Your task to perform on an android device: turn on bluetooth scan Image 0: 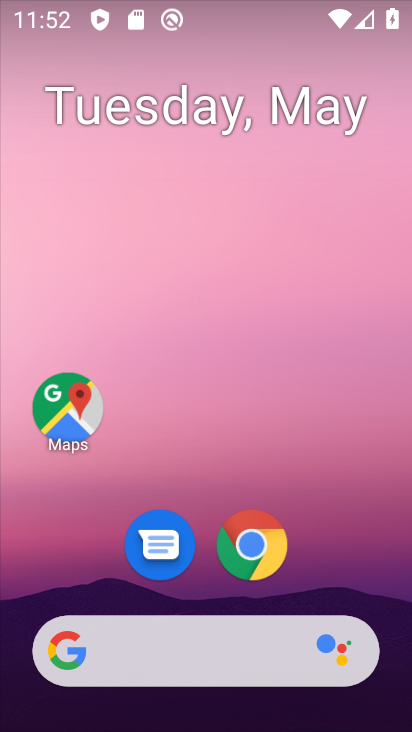
Step 0: drag from (347, 559) to (271, 33)
Your task to perform on an android device: turn on bluetooth scan Image 1: 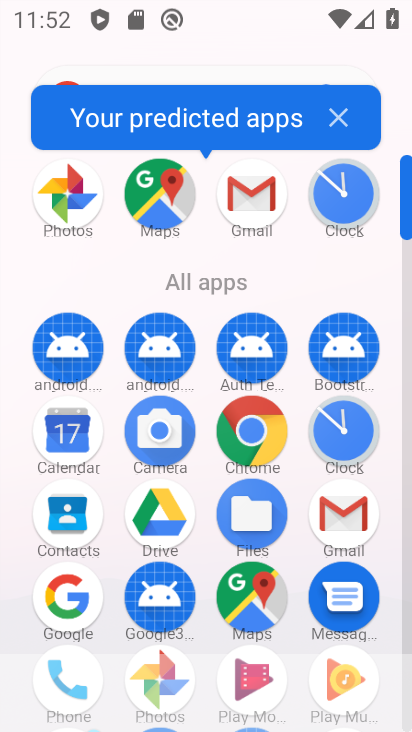
Step 1: drag from (209, 590) to (213, 275)
Your task to perform on an android device: turn on bluetooth scan Image 2: 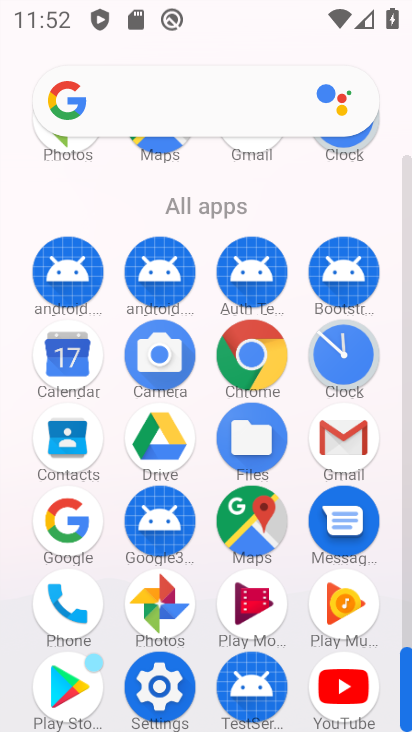
Step 2: click (166, 687)
Your task to perform on an android device: turn on bluetooth scan Image 3: 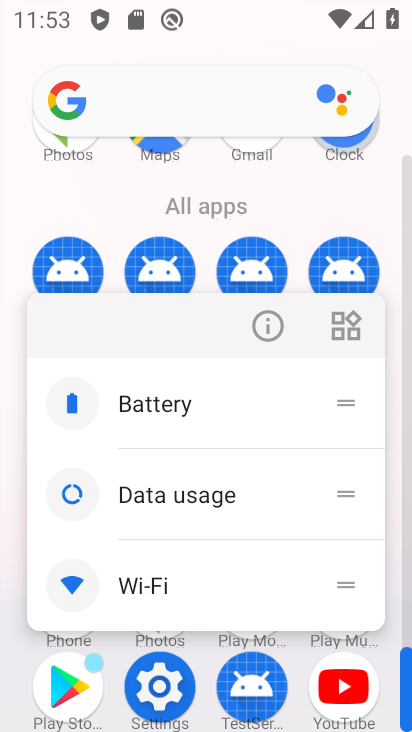
Step 3: click (159, 682)
Your task to perform on an android device: turn on bluetooth scan Image 4: 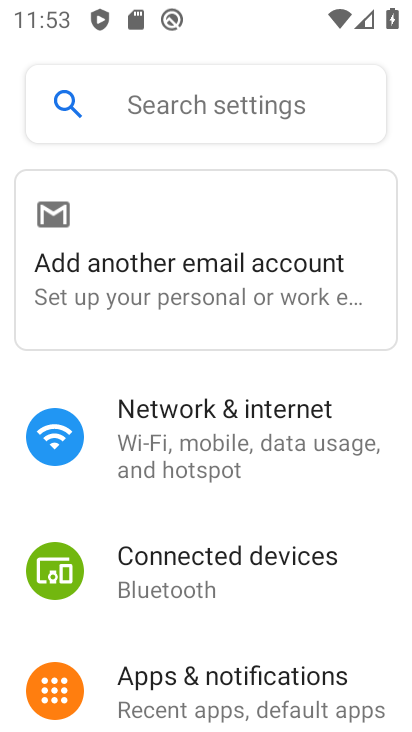
Step 4: drag from (176, 621) to (244, 496)
Your task to perform on an android device: turn on bluetooth scan Image 5: 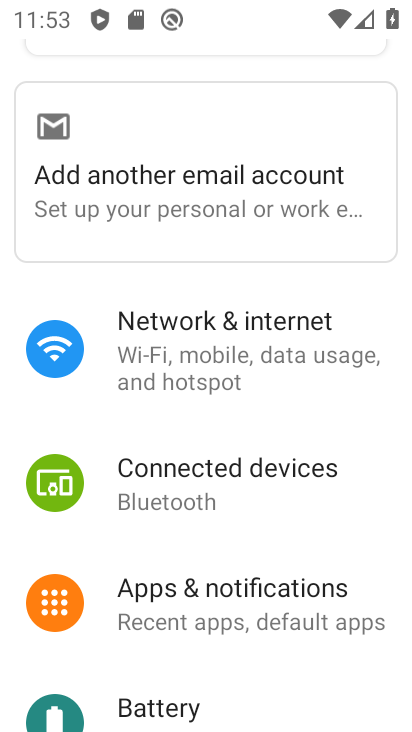
Step 5: drag from (245, 548) to (299, 467)
Your task to perform on an android device: turn on bluetooth scan Image 6: 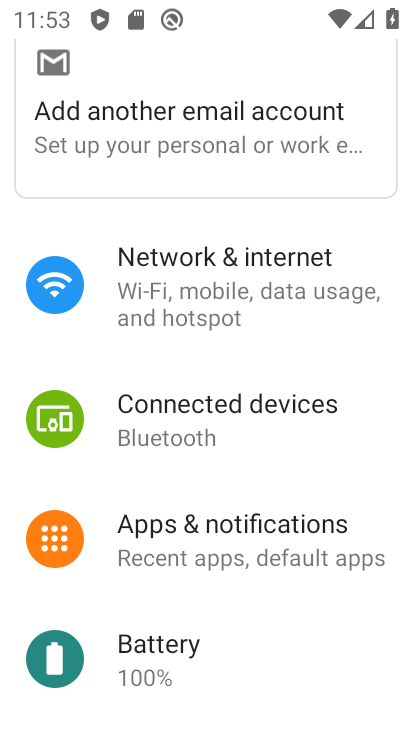
Step 6: drag from (171, 617) to (216, 522)
Your task to perform on an android device: turn on bluetooth scan Image 7: 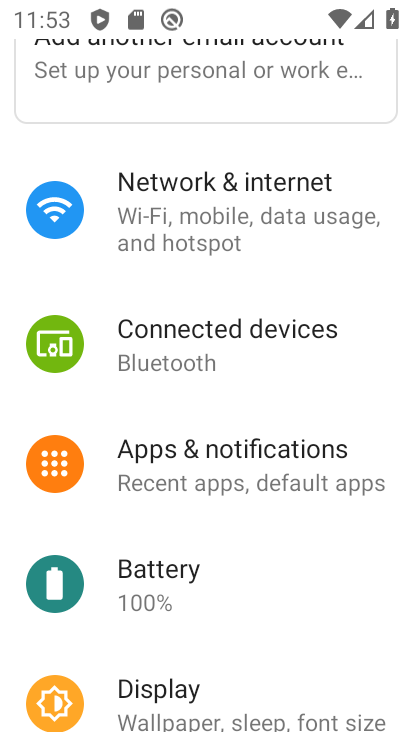
Step 7: drag from (162, 620) to (212, 533)
Your task to perform on an android device: turn on bluetooth scan Image 8: 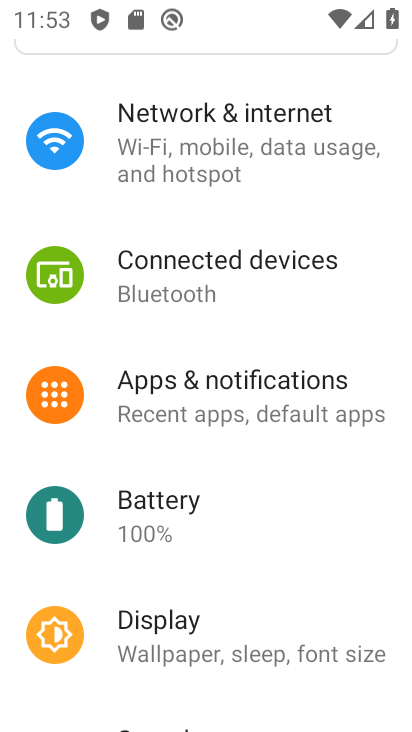
Step 8: drag from (173, 582) to (221, 500)
Your task to perform on an android device: turn on bluetooth scan Image 9: 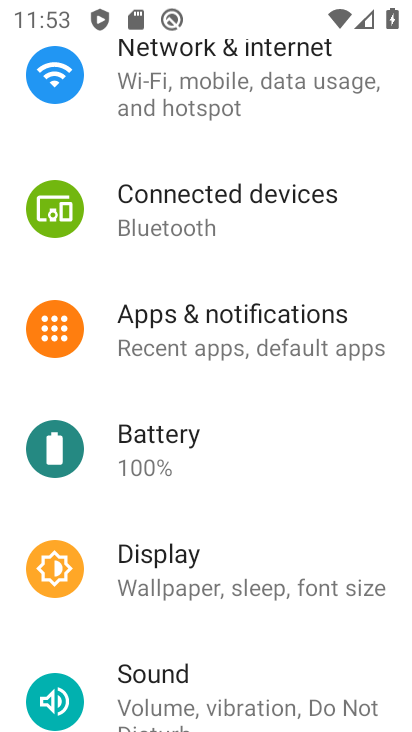
Step 9: drag from (164, 528) to (237, 435)
Your task to perform on an android device: turn on bluetooth scan Image 10: 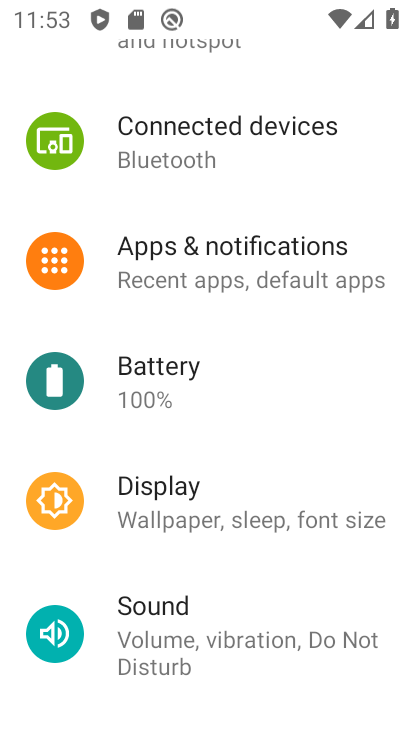
Step 10: drag from (149, 433) to (210, 326)
Your task to perform on an android device: turn on bluetooth scan Image 11: 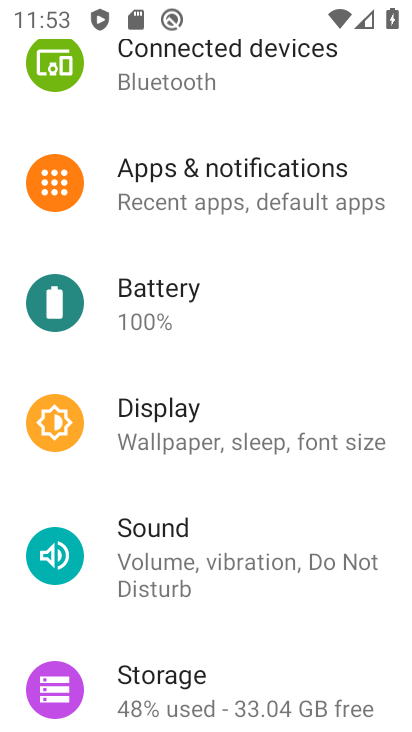
Step 11: drag from (136, 489) to (195, 389)
Your task to perform on an android device: turn on bluetooth scan Image 12: 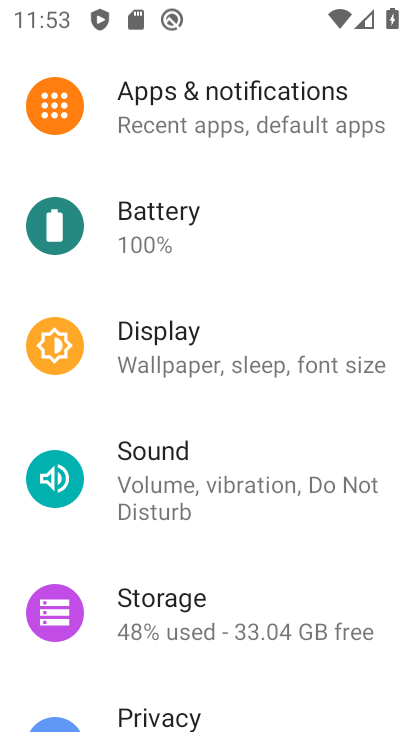
Step 12: drag from (152, 542) to (184, 478)
Your task to perform on an android device: turn on bluetooth scan Image 13: 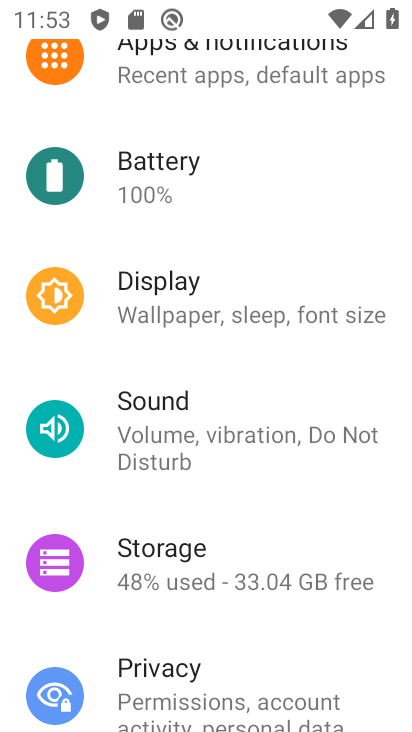
Step 13: drag from (151, 529) to (191, 468)
Your task to perform on an android device: turn on bluetooth scan Image 14: 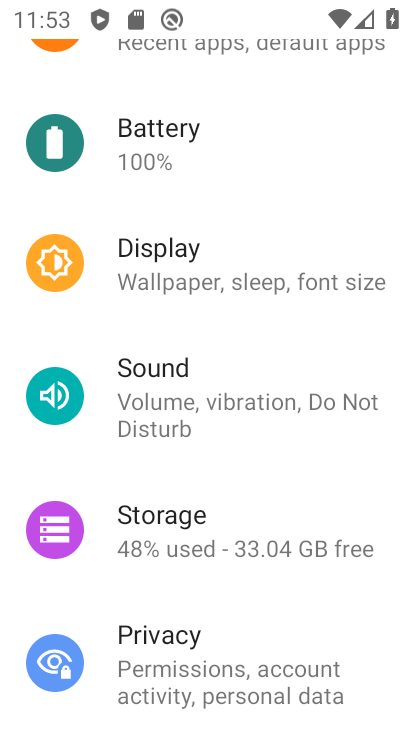
Step 14: drag from (146, 609) to (188, 493)
Your task to perform on an android device: turn on bluetooth scan Image 15: 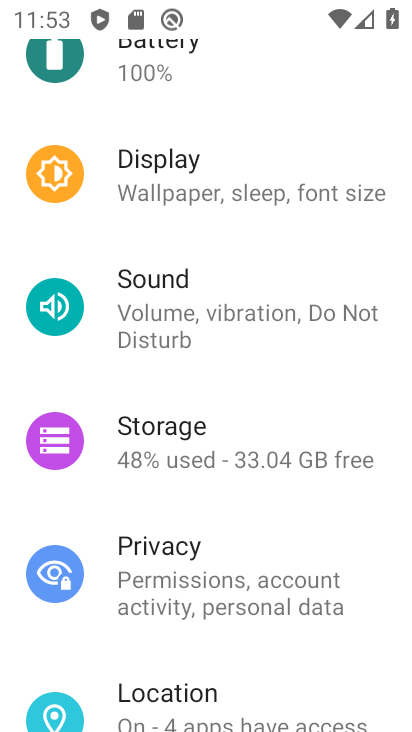
Step 15: drag from (174, 519) to (214, 437)
Your task to perform on an android device: turn on bluetooth scan Image 16: 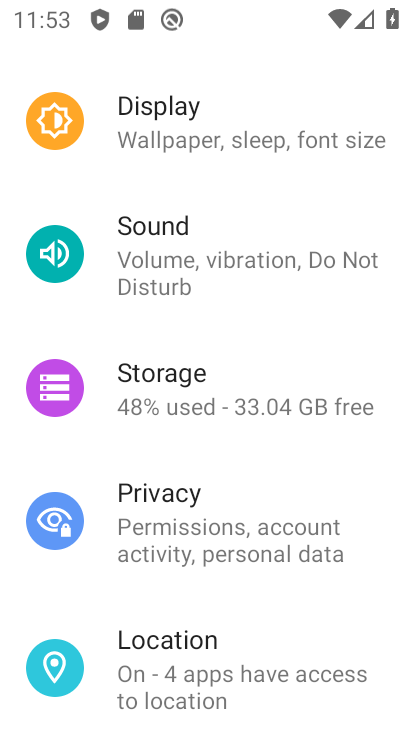
Step 16: drag from (150, 580) to (218, 484)
Your task to perform on an android device: turn on bluetooth scan Image 17: 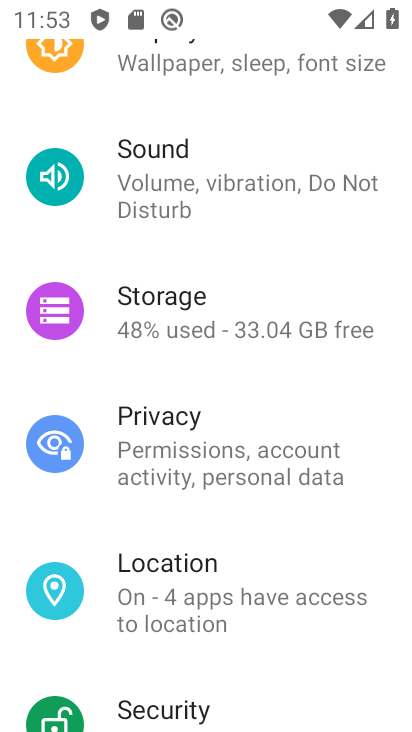
Step 17: click (147, 568)
Your task to perform on an android device: turn on bluetooth scan Image 18: 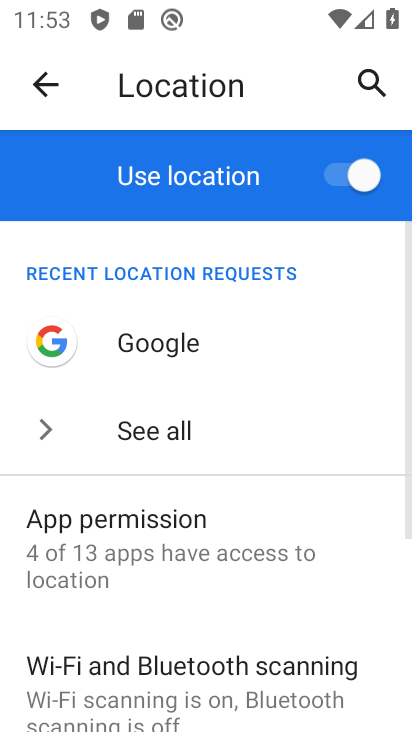
Step 18: click (203, 666)
Your task to perform on an android device: turn on bluetooth scan Image 19: 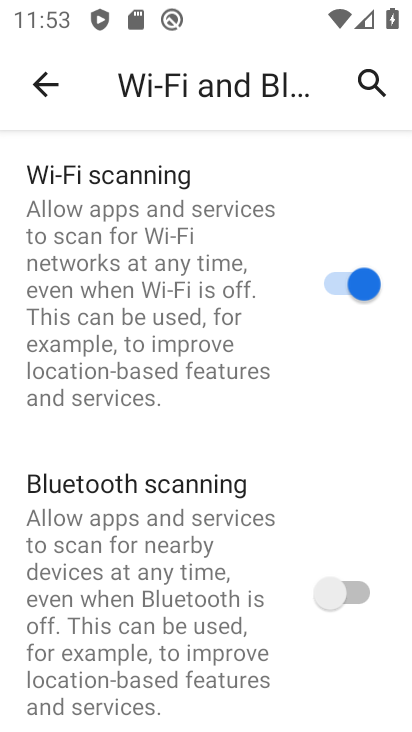
Step 19: click (332, 595)
Your task to perform on an android device: turn on bluetooth scan Image 20: 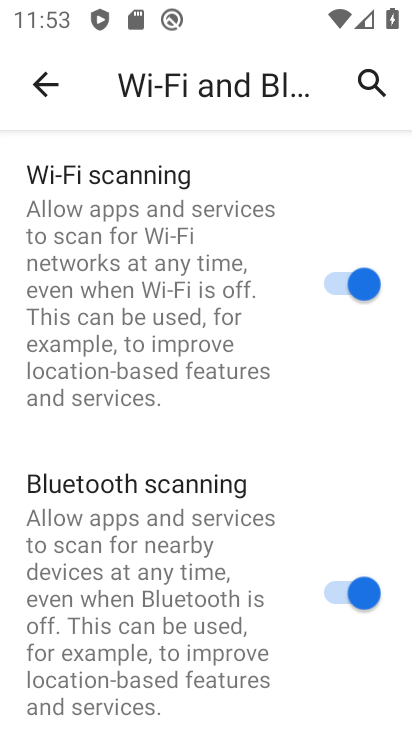
Step 20: task complete